Your task to perform on an android device: Go to accessibility settings Image 0: 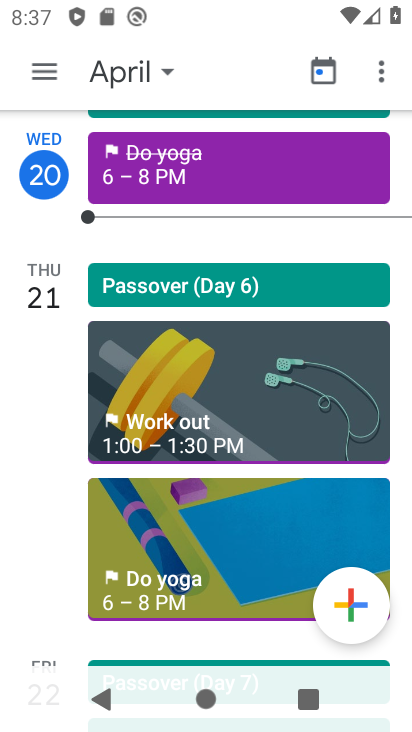
Step 0: press home button
Your task to perform on an android device: Go to accessibility settings Image 1: 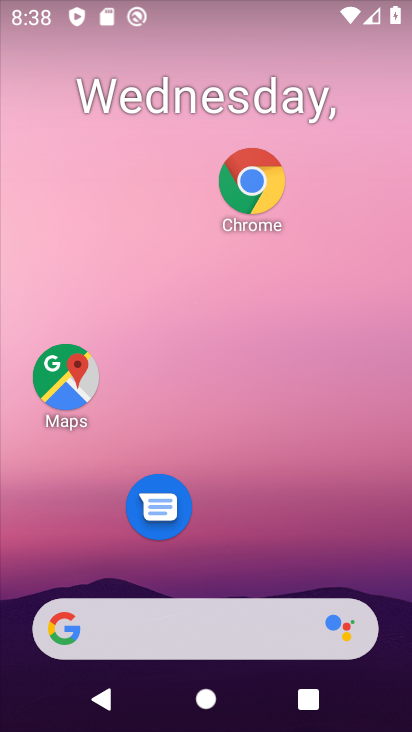
Step 1: drag from (323, 494) to (316, 401)
Your task to perform on an android device: Go to accessibility settings Image 2: 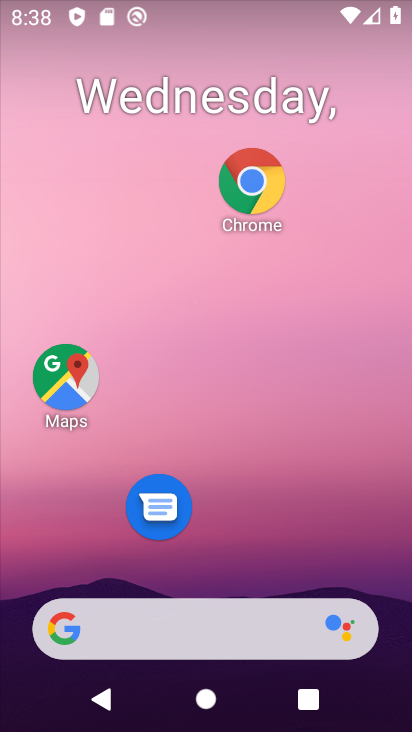
Step 2: drag from (276, 575) to (283, 176)
Your task to perform on an android device: Go to accessibility settings Image 3: 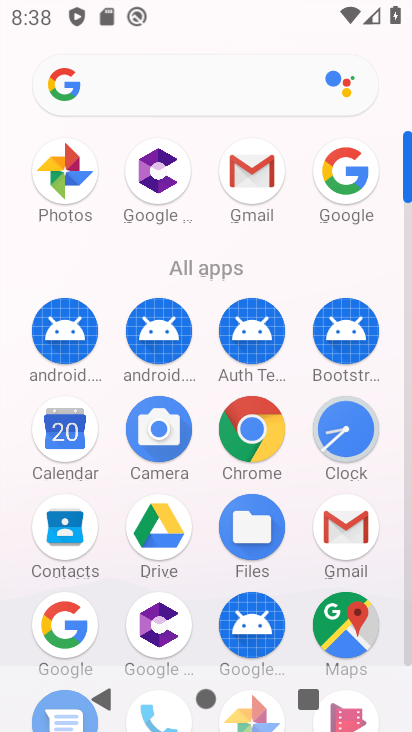
Step 3: click (404, 619)
Your task to perform on an android device: Go to accessibility settings Image 4: 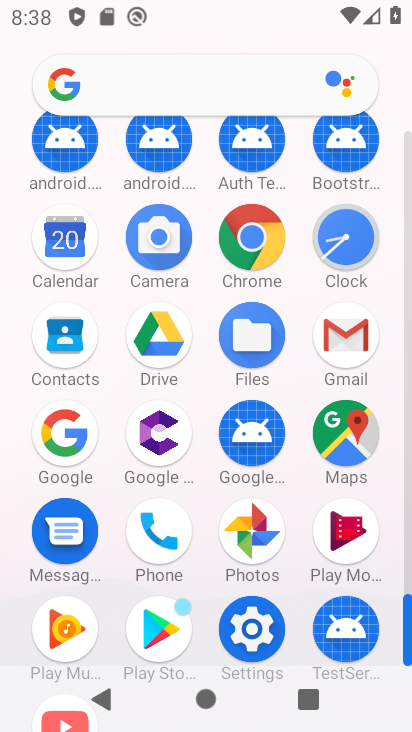
Step 4: click (261, 647)
Your task to perform on an android device: Go to accessibility settings Image 5: 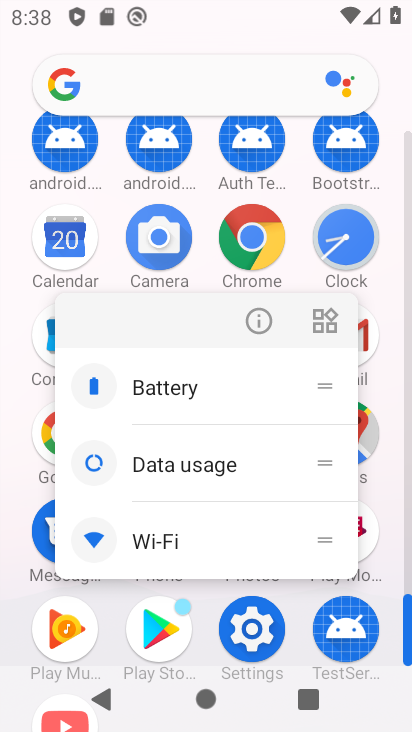
Step 5: click (263, 647)
Your task to perform on an android device: Go to accessibility settings Image 6: 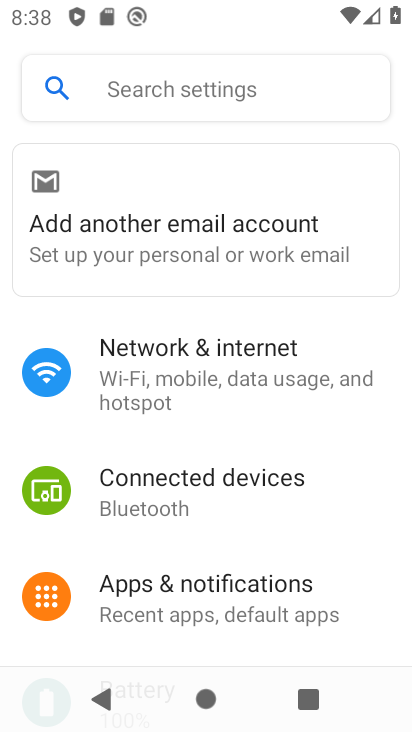
Step 6: drag from (249, 476) to (250, 318)
Your task to perform on an android device: Go to accessibility settings Image 7: 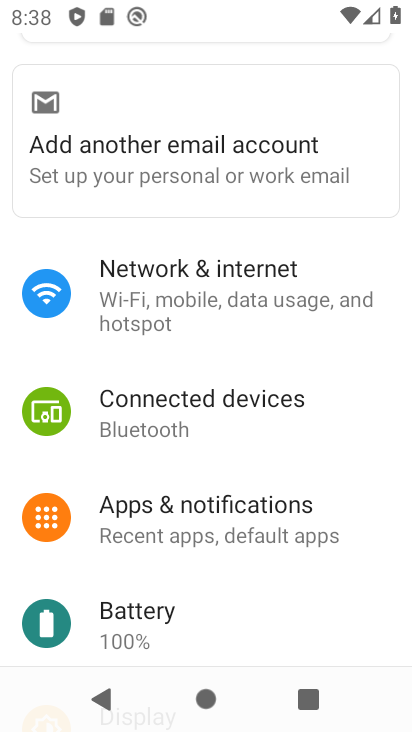
Step 7: drag from (252, 502) to (256, 259)
Your task to perform on an android device: Go to accessibility settings Image 8: 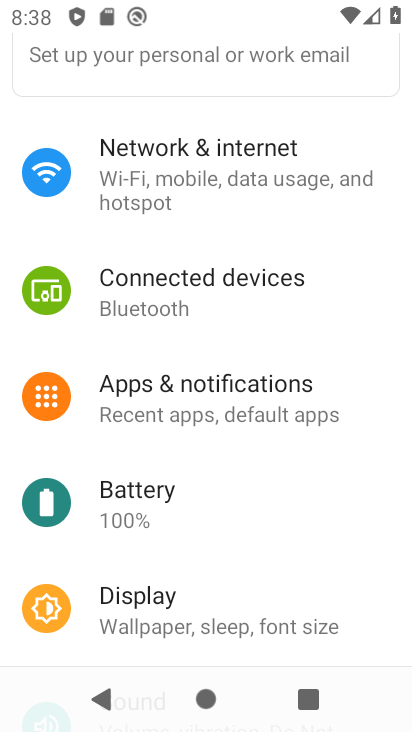
Step 8: drag from (267, 449) to (277, 303)
Your task to perform on an android device: Go to accessibility settings Image 9: 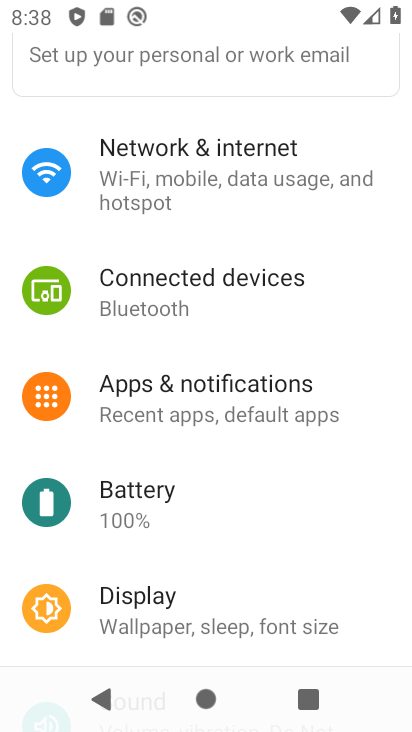
Step 9: drag from (239, 480) to (245, 272)
Your task to perform on an android device: Go to accessibility settings Image 10: 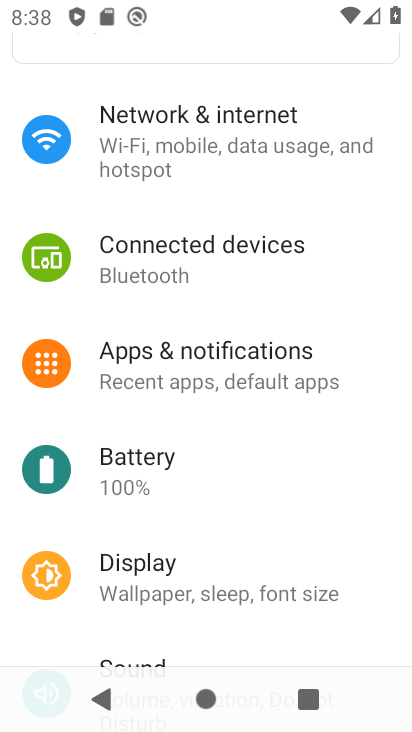
Step 10: drag from (233, 479) to (236, 308)
Your task to perform on an android device: Go to accessibility settings Image 11: 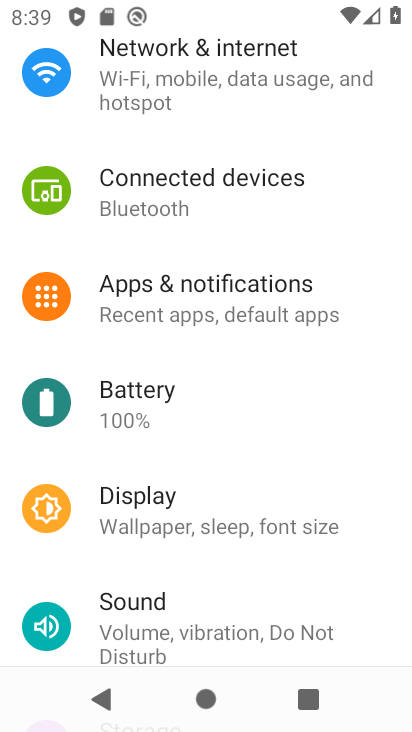
Step 11: drag from (243, 423) to (252, 61)
Your task to perform on an android device: Go to accessibility settings Image 12: 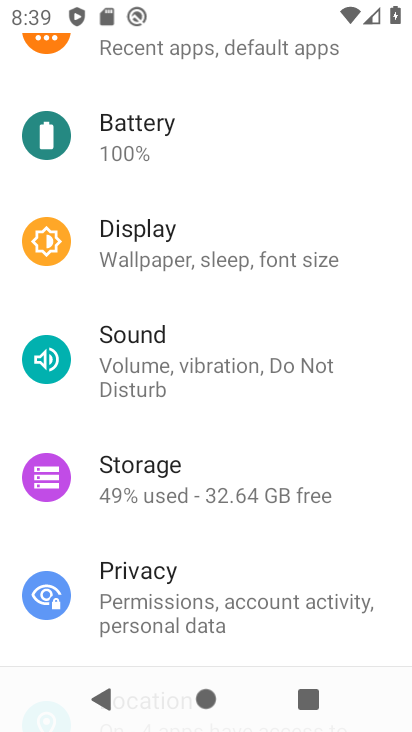
Step 12: drag from (229, 500) to (281, 82)
Your task to perform on an android device: Go to accessibility settings Image 13: 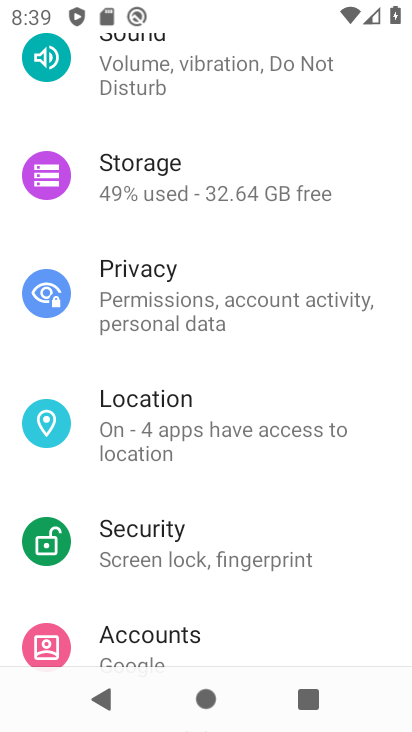
Step 13: drag from (238, 392) to (251, 160)
Your task to perform on an android device: Go to accessibility settings Image 14: 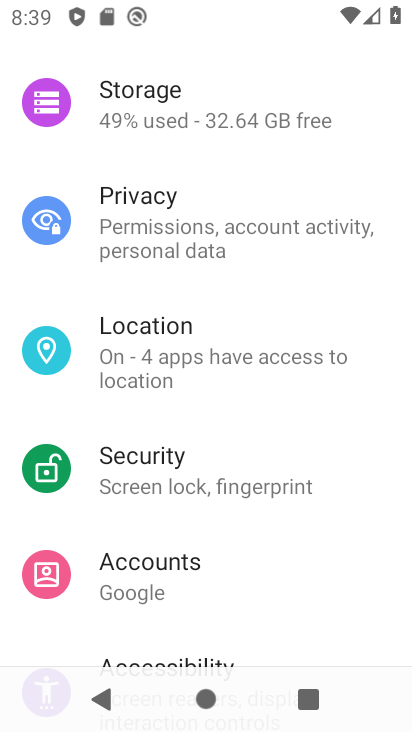
Step 14: drag from (223, 515) to (230, 133)
Your task to perform on an android device: Go to accessibility settings Image 15: 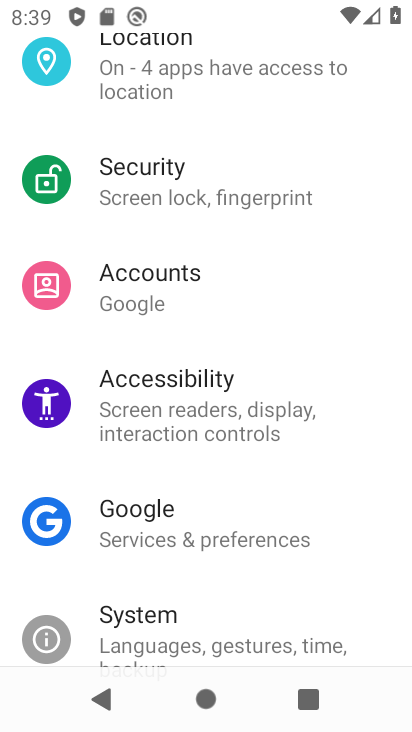
Step 15: click (242, 400)
Your task to perform on an android device: Go to accessibility settings Image 16: 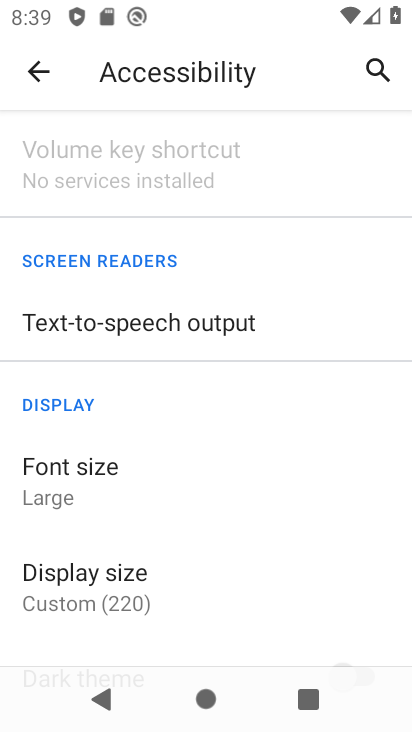
Step 16: task complete